Your task to perform on an android device: toggle javascript in the chrome app Image 0: 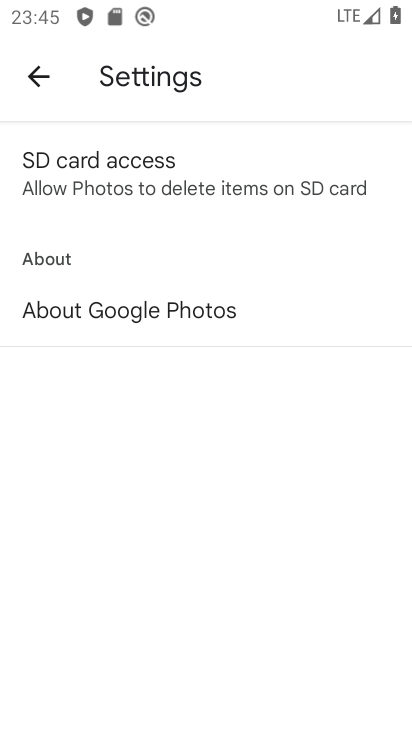
Step 0: press home button
Your task to perform on an android device: toggle javascript in the chrome app Image 1: 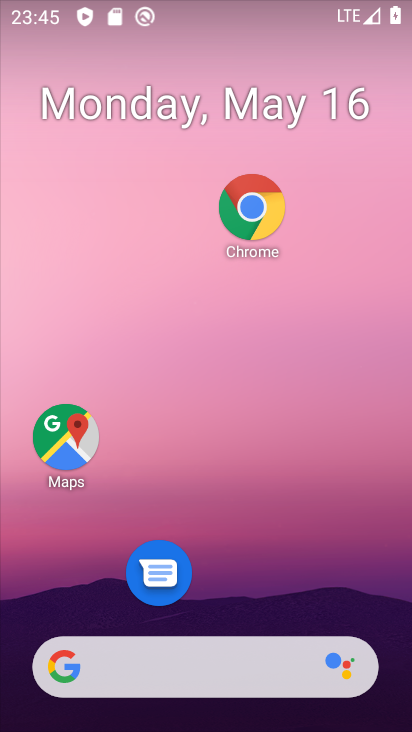
Step 1: drag from (244, 660) to (212, 18)
Your task to perform on an android device: toggle javascript in the chrome app Image 2: 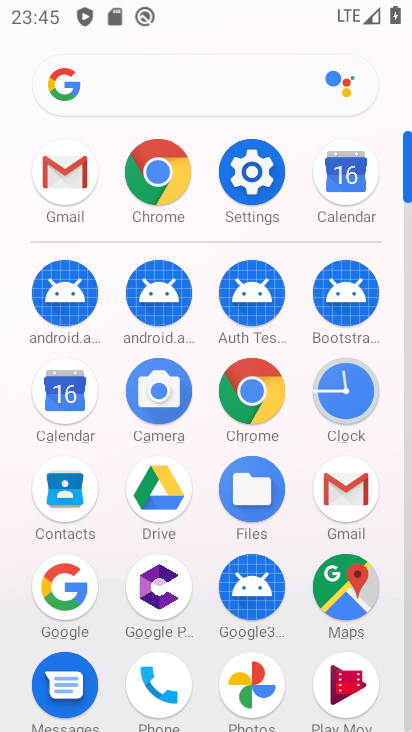
Step 2: click (262, 372)
Your task to perform on an android device: toggle javascript in the chrome app Image 3: 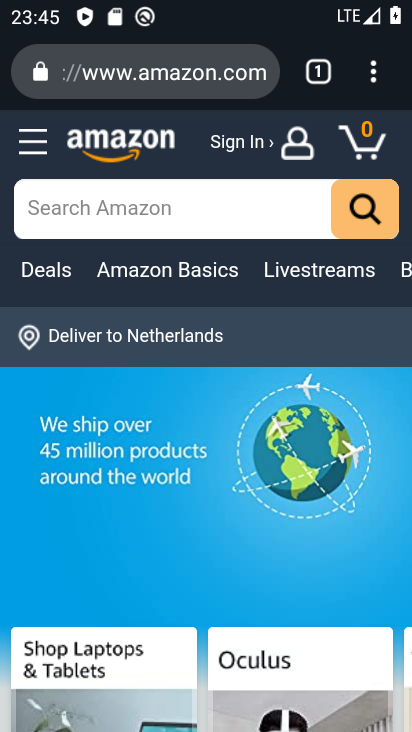
Step 3: click (367, 70)
Your task to perform on an android device: toggle javascript in the chrome app Image 4: 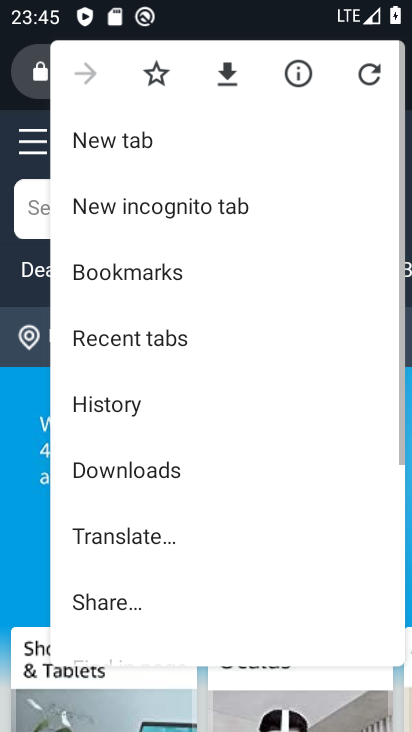
Step 4: drag from (170, 602) to (214, 98)
Your task to perform on an android device: toggle javascript in the chrome app Image 5: 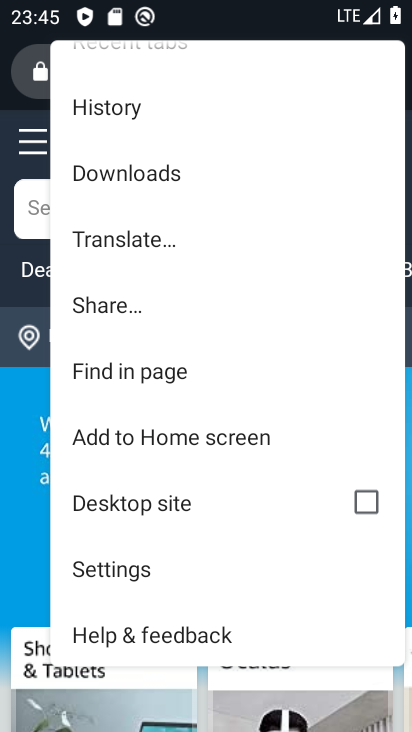
Step 5: click (157, 577)
Your task to perform on an android device: toggle javascript in the chrome app Image 6: 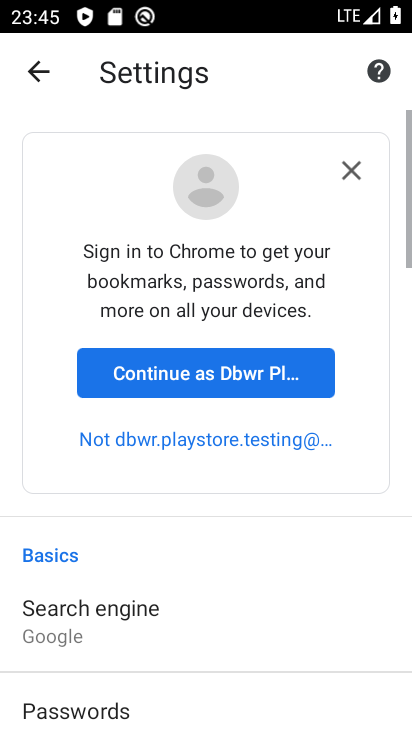
Step 6: drag from (195, 616) to (246, 34)
Your task to perform on an android device: toggle javascript in the chrome app Image 7: 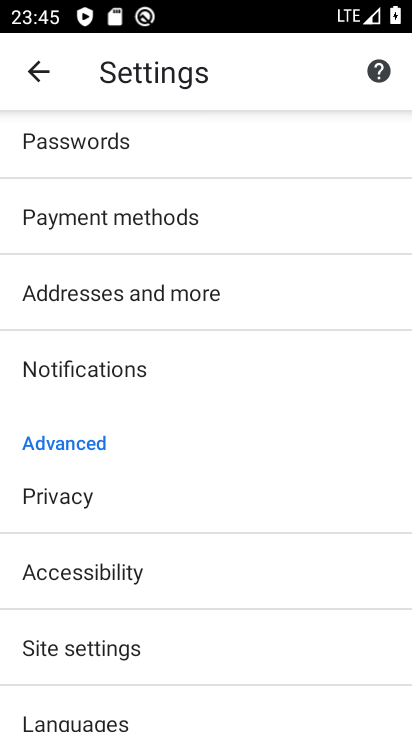
Step 7: click (186, 644)
Your task to perform on an android device: toggle javascript in the chrome app Image 8: 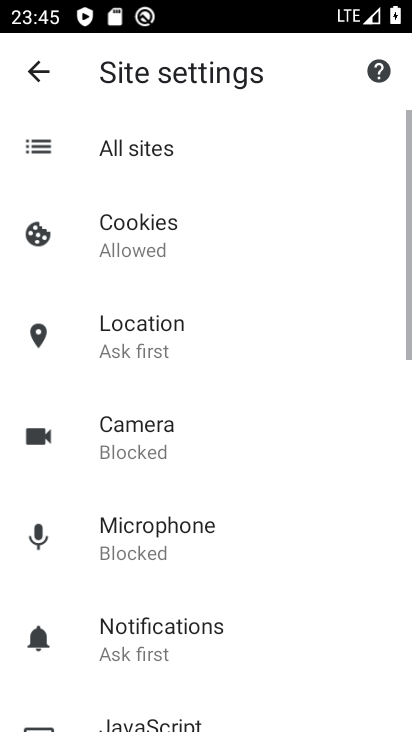
Step 8: drag from (134, 672) to (226, 263)
Your task to perform on an android device: toggle javascript in the chrome app Image 9: 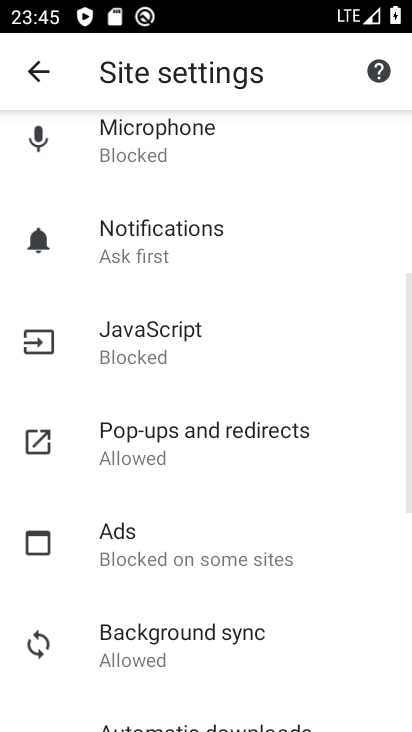
Step 9: click (206, 388)
Your task to perform on an android device: toggle javascript in the chrome app Image 10: 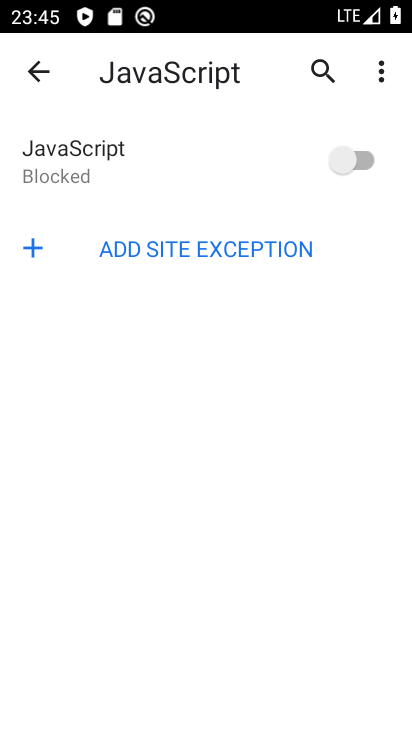
Step 10: click (371, 164)
Your task to perform on an android device: toggle javascript in the chrome app Image 11: 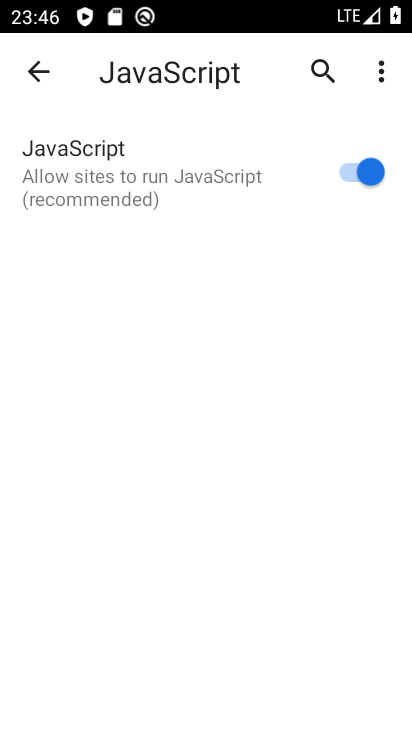
Step 11: task complete